Your task to perform on an android device: stop showing notifications on the lock screen Image 0: 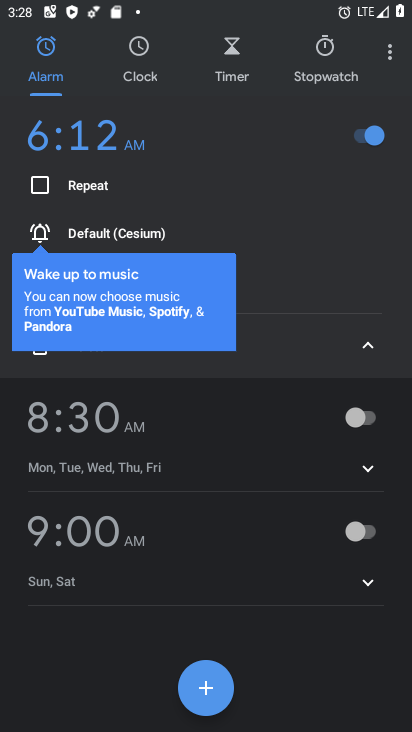
Step 0: press home button
Your task to perform on an android device: stop showing notifications on the lock screen Image 1: 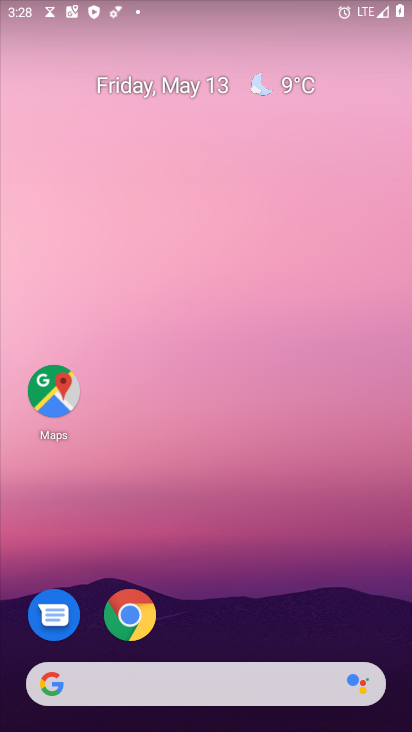
Step 1: drag from (199, 728) to (202, 188)
Your task to perform on an android device: stop showing notifications on the lock screen Image 2: 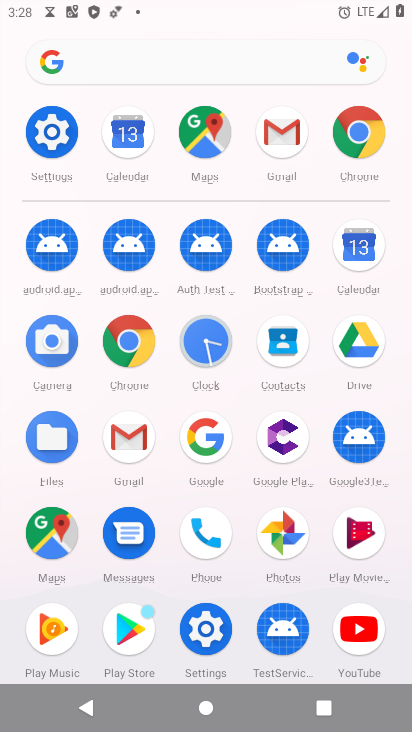
Step 2: click (45, 124)
Your task to perform on an android device: stop showing notifications on the lock screen Image 3: 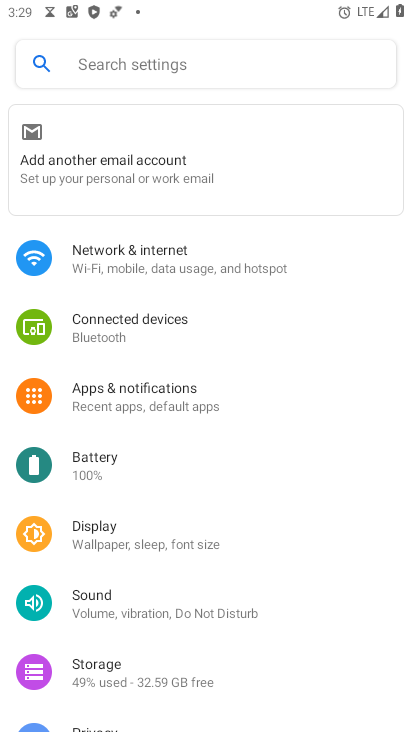
Step 3: click (129, 394)
Your task to perform on an android device: stop showing notifications on the lock screen Image 4: 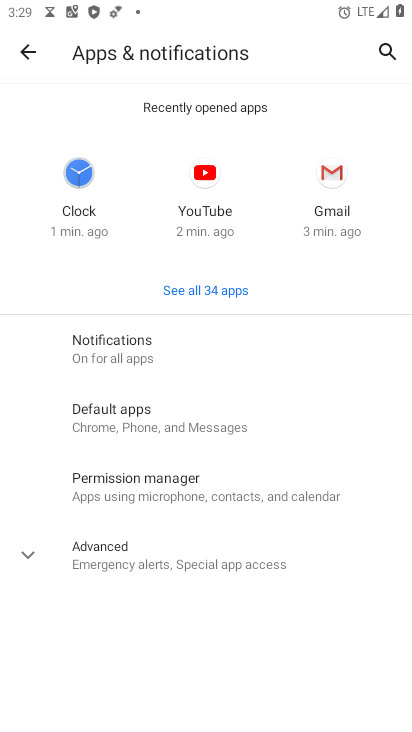
Step 4: click (114, 350)
Your task to perform on an android device: stop showing notifications on the lock screen Image 5: 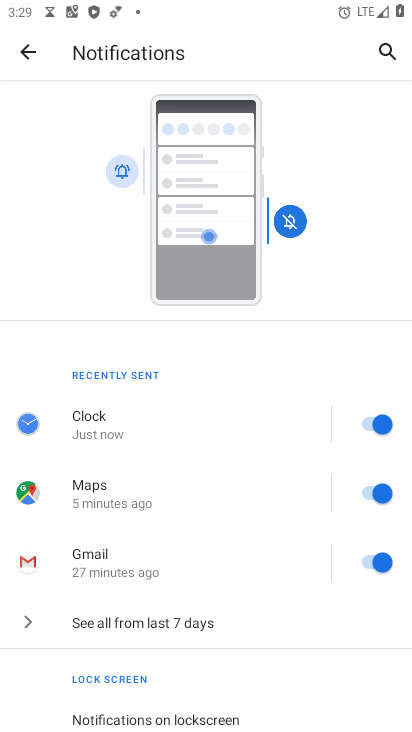
Step 5: task complete